Your task to perform on an android device: Go to network settings Image 0: 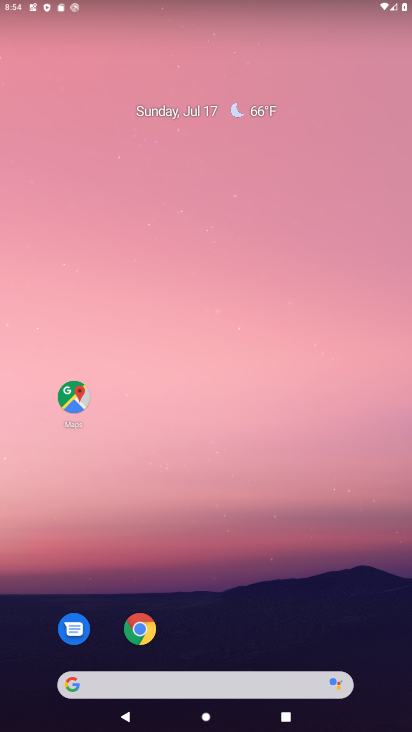
Step 0: press home button
Your task to perform on an android device: Go to network settings Image 1: 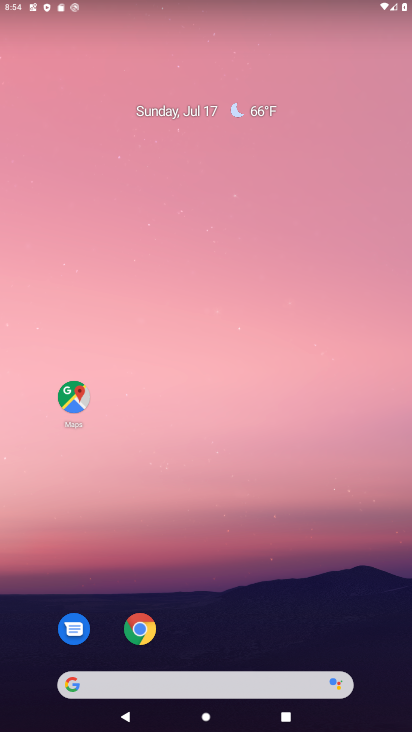
Step 1: drag from (218, 652) to (232, 24)
Your task to perform on an android device: Go to network settings Image 2: 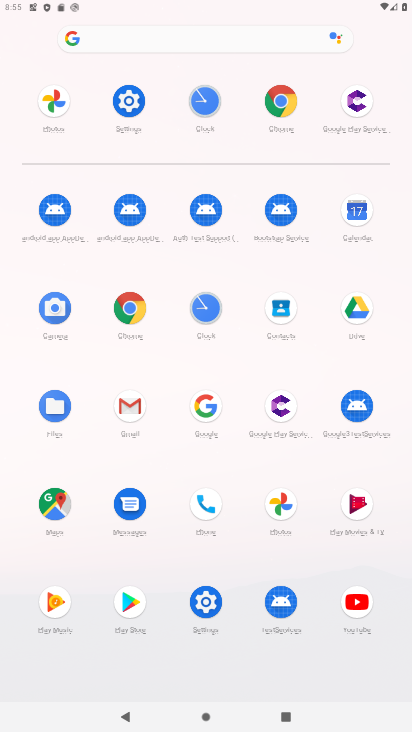
Step 2: click (127, 97)
Your task to perform on an android device: Go to network settings Image 3: 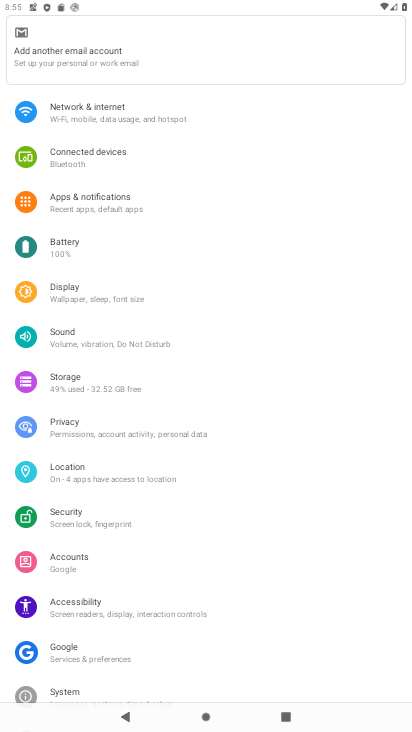
Step 3: click (134, 105)
Your task to perform on an android device: Go to network settings Image 4: 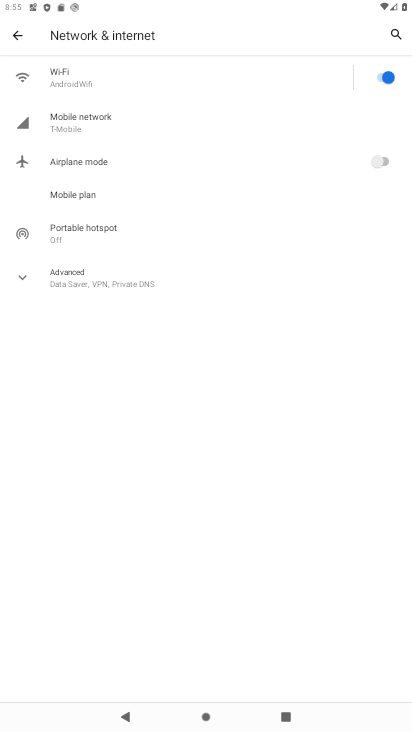
Step 4: click (107, 79)
Your task to perform on an android device: Go to network settings Image 5: 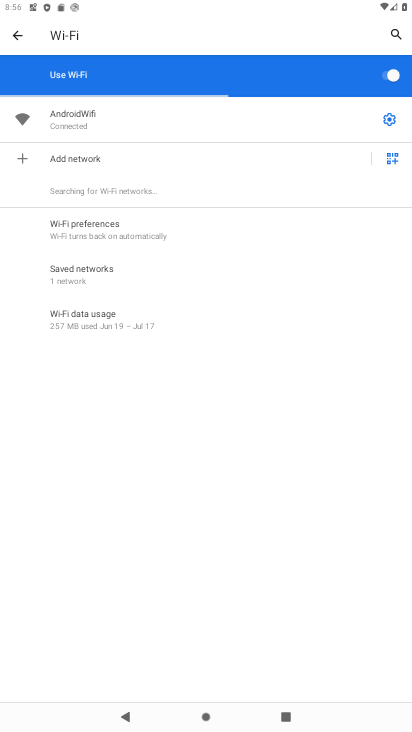
Step 5: click (17, 36)
Your task to perform on an android device: Go to network settings Image 6: 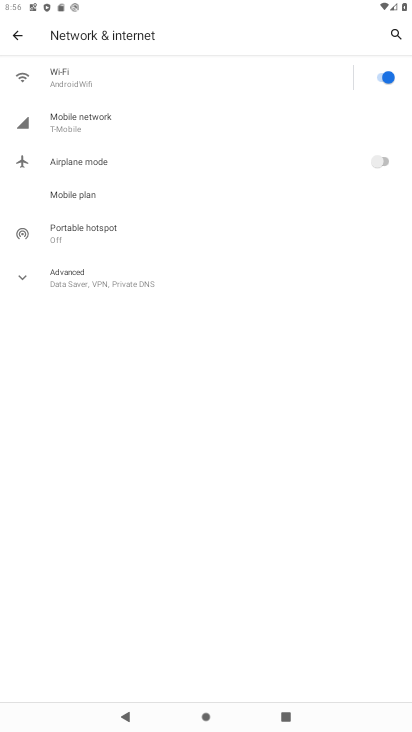
Step 6: click (19, 272)
Your task to perform on an android device: Go to network settings Image 7: 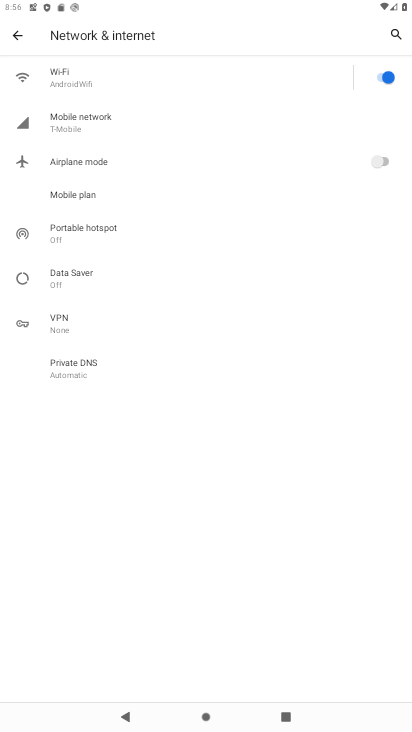
Step 7: task complete